Your task to perform on an android device: turn on translation in the chrome app Image 0: 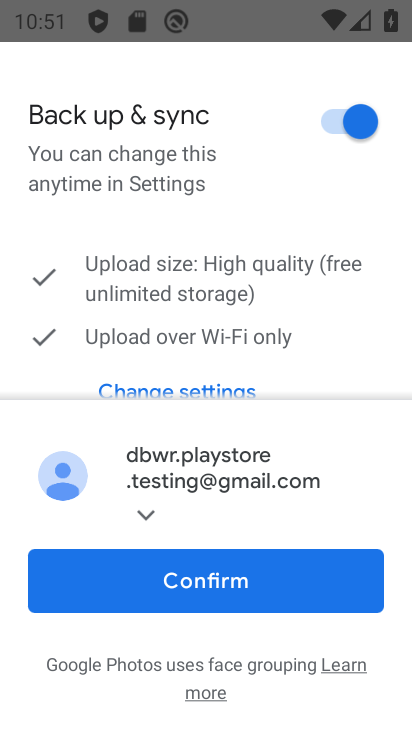
Step 0: press home button
Your task to perform on an android device: turn on translation in the chrome app Image 1: 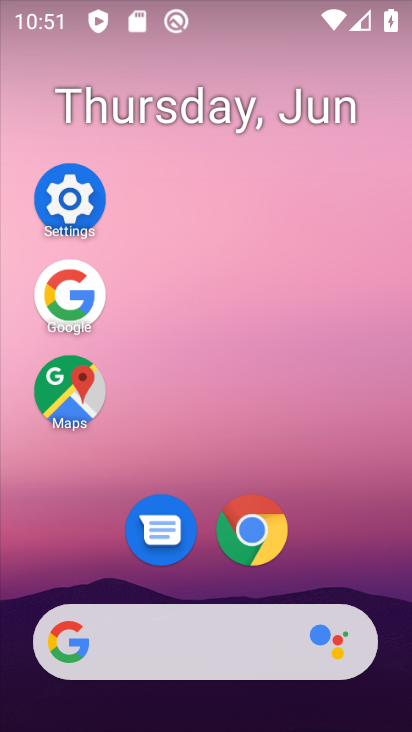
Step 1: click (276, 520)
Your task to perform on an android device: turn on translation in the chrome app Image 2: 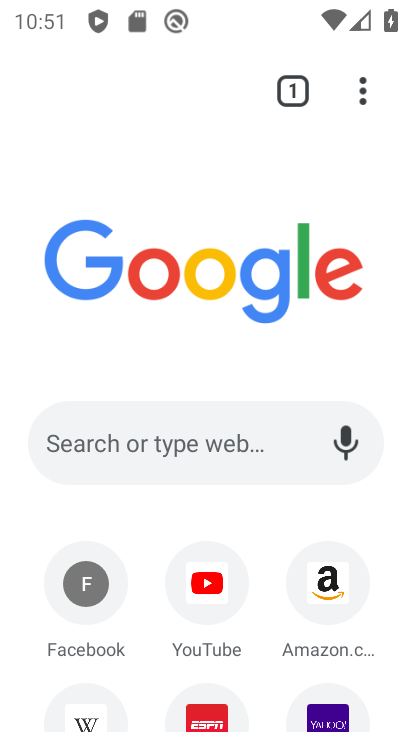
Step 2: click (368, 82)
Your task to perform on an android device: turn on translation in the chrome app Image 3: 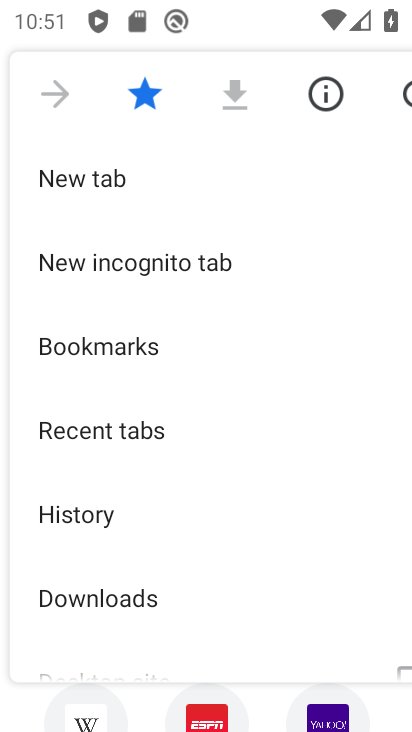
Step 3: drag from (151, 552) to (226, 205)
Your task to perform on an android device: turn on translation in the chrome app Image 4: 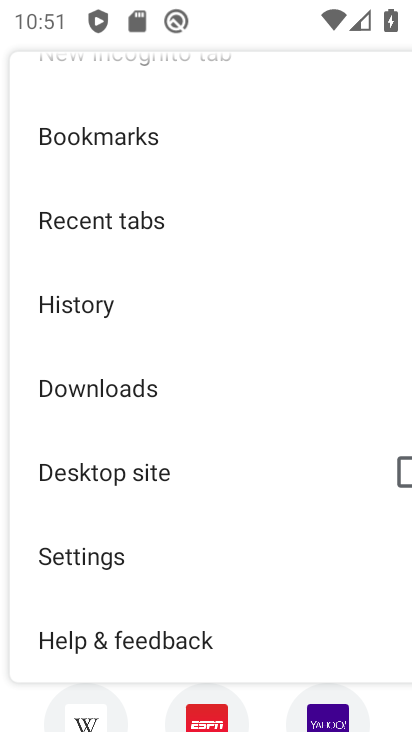
Step 4: click (162, 567)
Your task to perform on an android device: turn on translation in the chrome app Image 5: 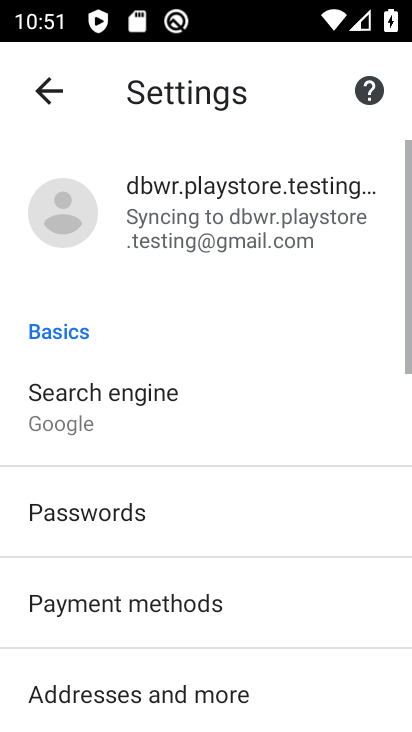
Step 5: drag from (162, 567) to (209, 184)
Your task to perform on an android device: turn on translation in the chrome app Image 6: 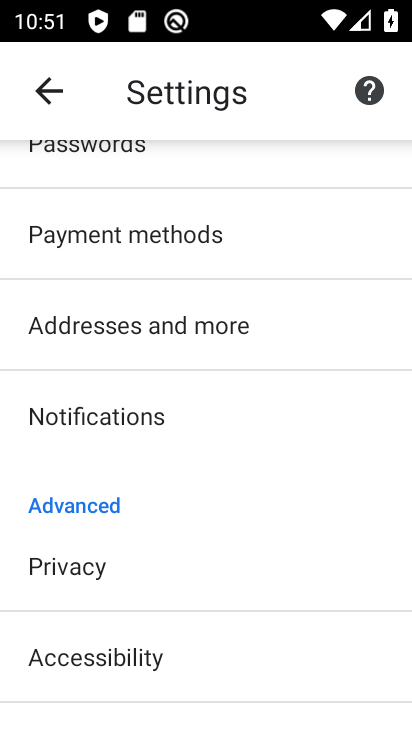
Step 6: drag from (183, 603) to (225, 227)
Your task to perform on an android device: turn on translation in the chrome app Image 7: 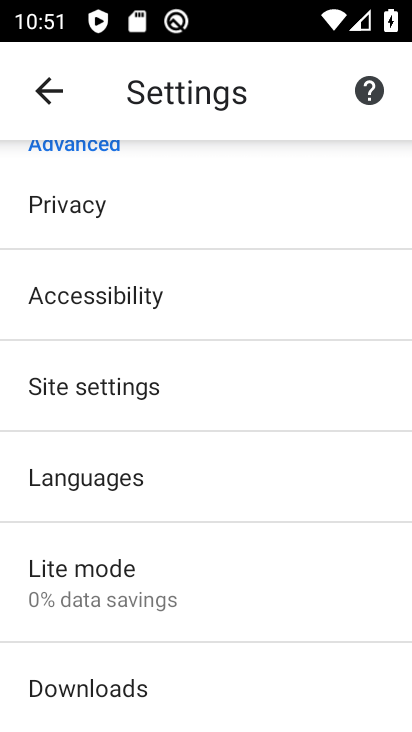
Step 7: click (207, 496)
Your task to perform on an android device: turn on translation in the chrome app Image 8: 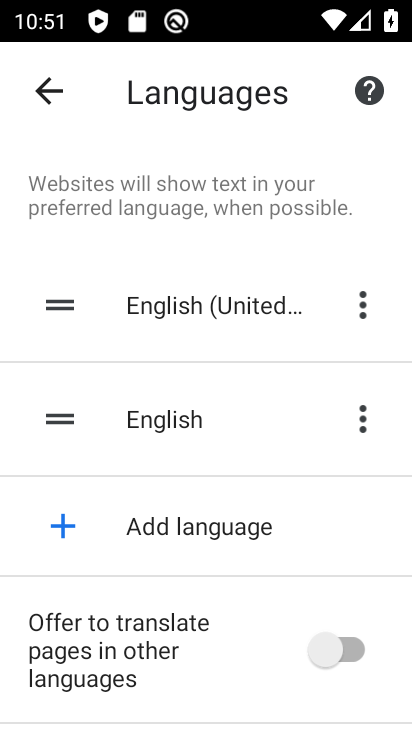
Step 8: click (354, 655)
Your task to perform on an android device: turn on translation in the chrome app Image 9: 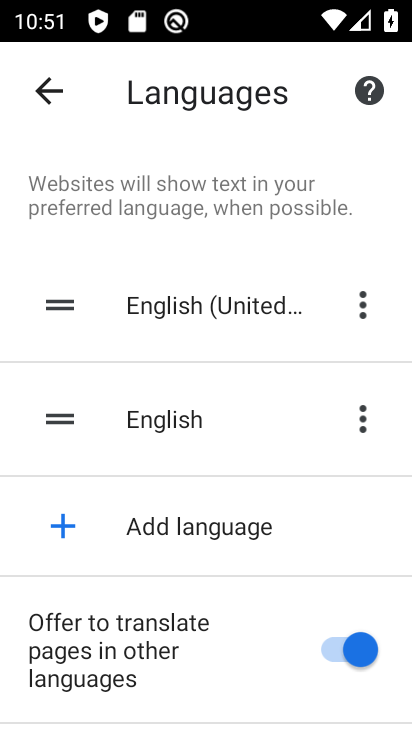
Step 9: task complete